Your task to perform on an android device: toggle airplane mode Image 0: 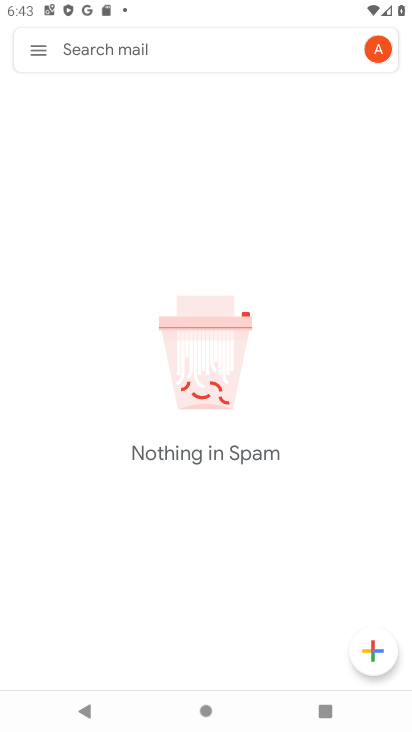
Step 0: press home button
Your task to perform on an android device: toggle airplane mode Image 1: 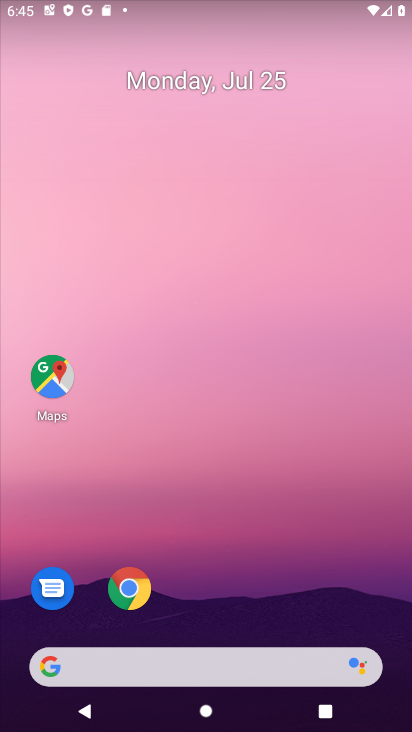
Step 1: task complete